Your task to perform on an android device: Open the phone app and click the voicemail tab. Image 0: 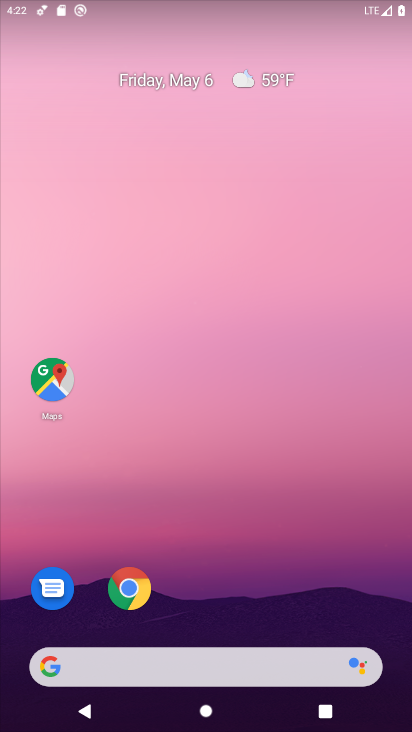
Step 0: drag from (215, 726) to (215, 248)
Your task to perform on an android device: Open the phone app and click the voicemail tab. Image 1: 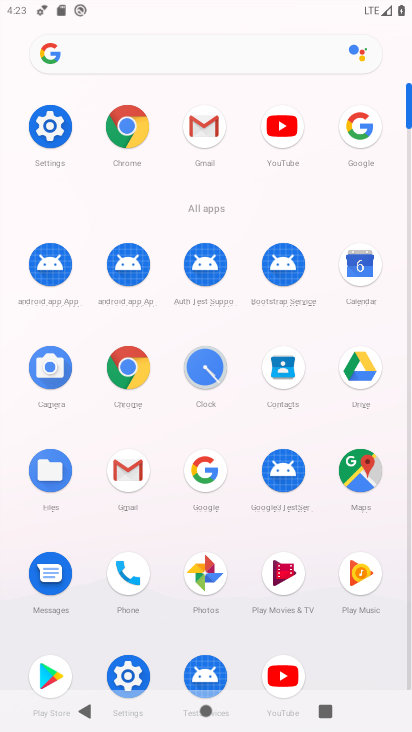
Step 1: click (127, 574)
Your task to perform on an android device: Open the phone app and click the voicemail tab. Image 2: 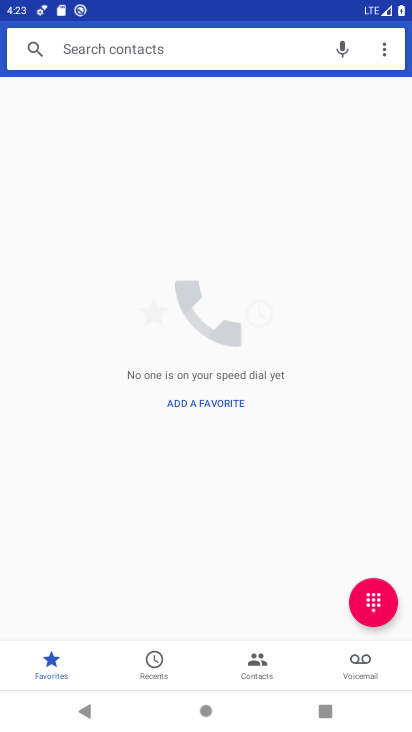
Step 2: click (369, 671)
Your task to perform on an android device: Open the phone app and click the voicemail tab. Image 3: 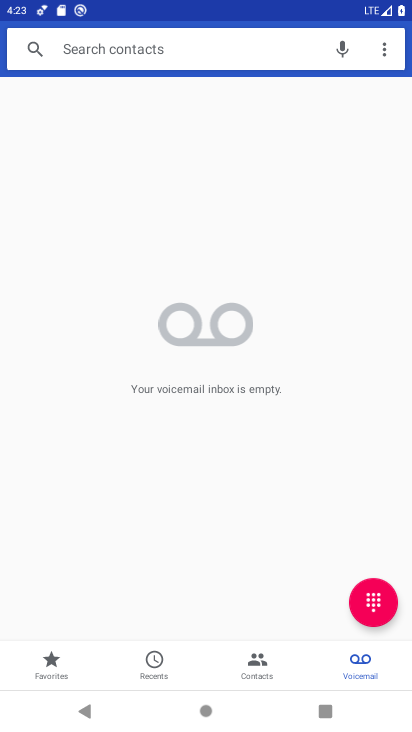
Step 3: task complete